Your task to perform on an android device: Open calendar and show me the second week of next month Image 0: 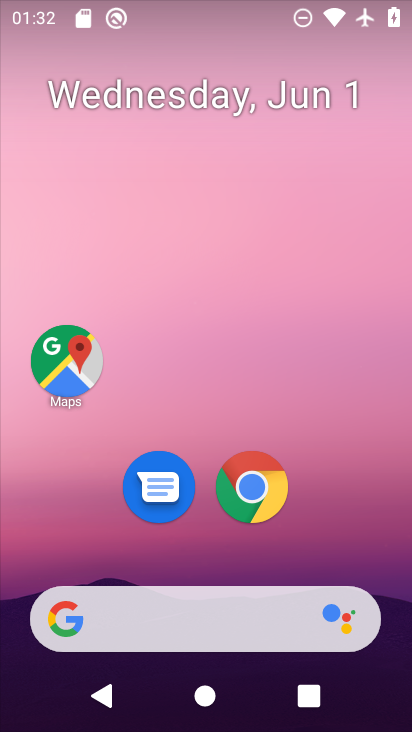
Step 0: click (287, 461)
Your task to perform on an android device: Open calendar and show me the second week of next month Image 1: 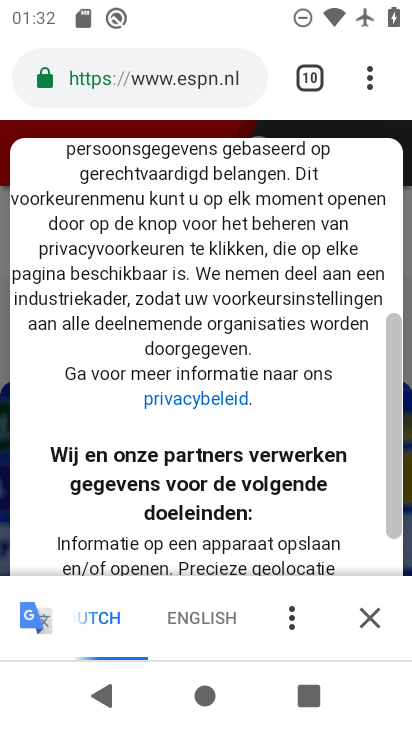
Step 1: click (365, 604)
Your task to perform on an android device: Open calendar and show me the second week of next month Image 2: 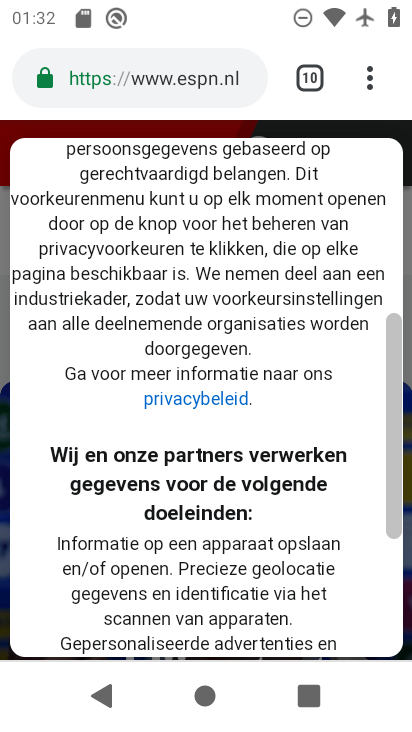
Step 2: press home button
Your task to perform on an android device: Open calendar and show me the second week of next month Image 3: 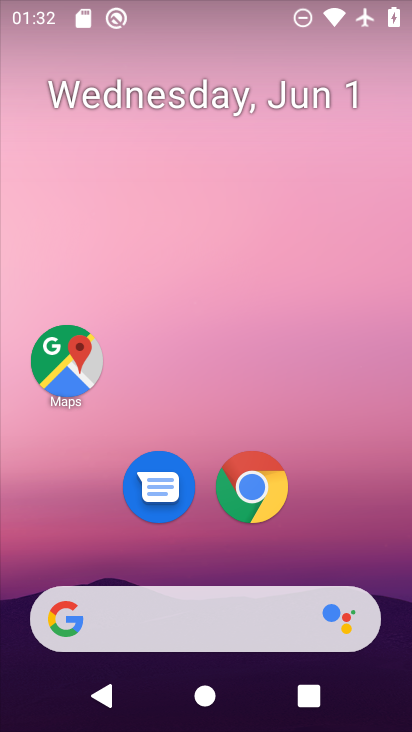
Step 3: drag from (357, 521) to (344, 168)
Your task to perform on an android device: Open calendar and show me the second week of next month Image 4: 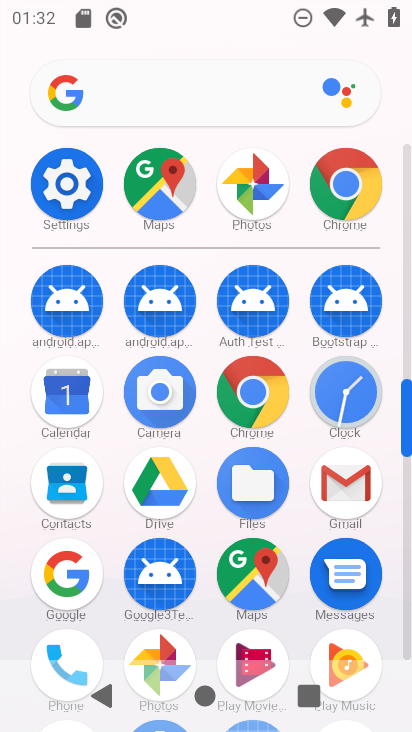
Step 4: click (66, 392)
Your task to perform on an android device: Open calendar and show me the second week of next month Image 5: 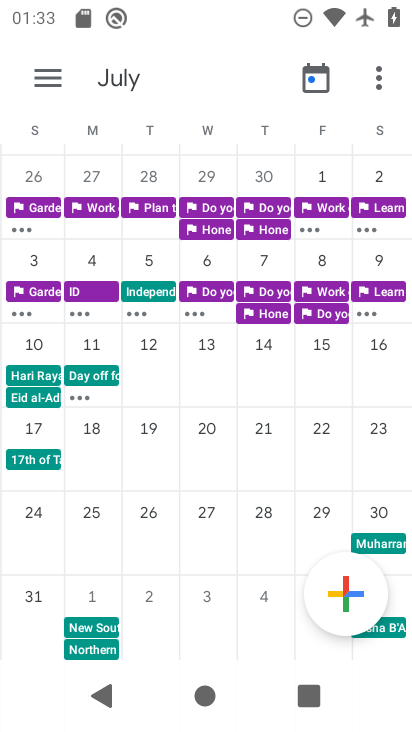
Step 5: task complete